Your task to perform on an android device: Open calendar and show me the second week of next month Image 0: 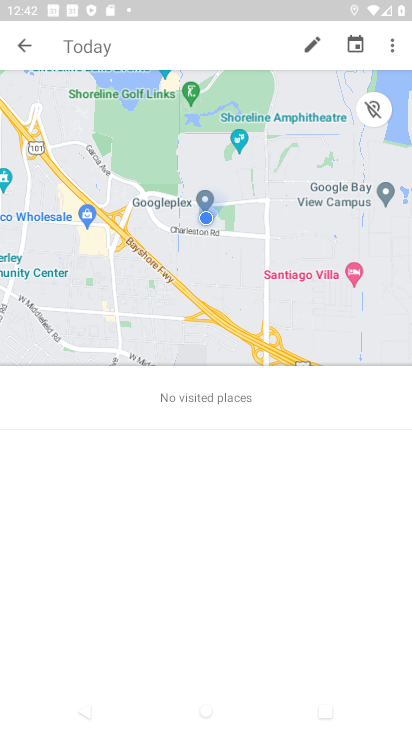
Step 0: press home button
Your task to perform on an android device: Open calendar and show me the second week of next month Image 1: 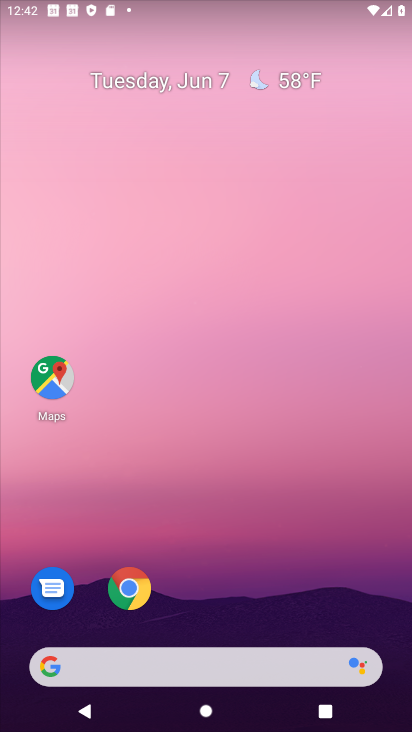
Step 1: drag from (260, 603) to (261, 179)
Your task to perform on an android device: Open calendar and show me the second week of next month Image 2: 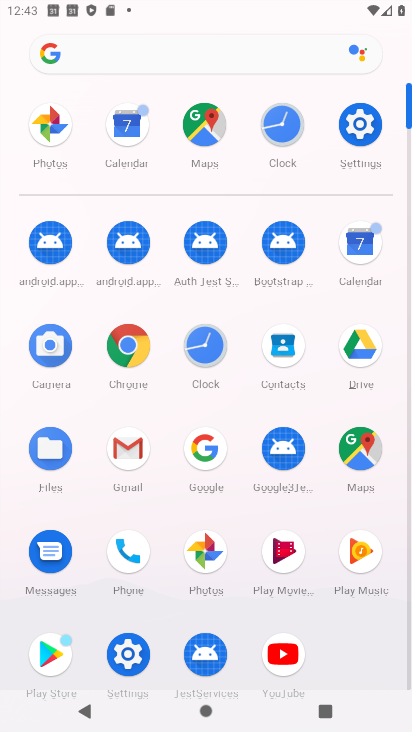
Step 2: click (123, 154)
Your task to perform on an android device: Open calendar and show me the second week of next month Image 3: 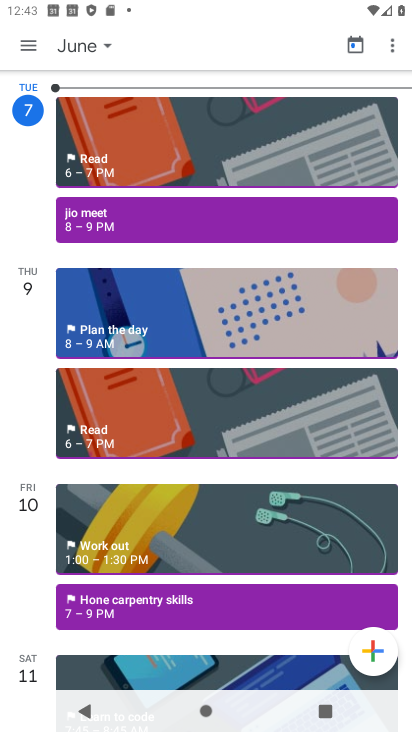
Step 3: task complete